Your task to perform on an android device: Go to wifi settings Image 0: 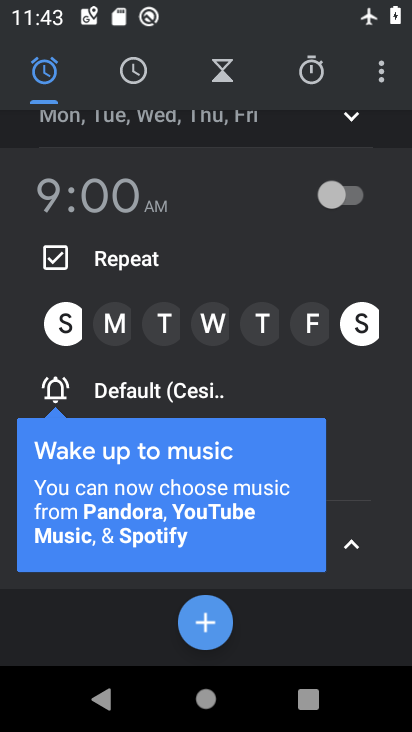
Step 0: press back button
Your task to perform on an android device: Go to wifi settings Image 1: 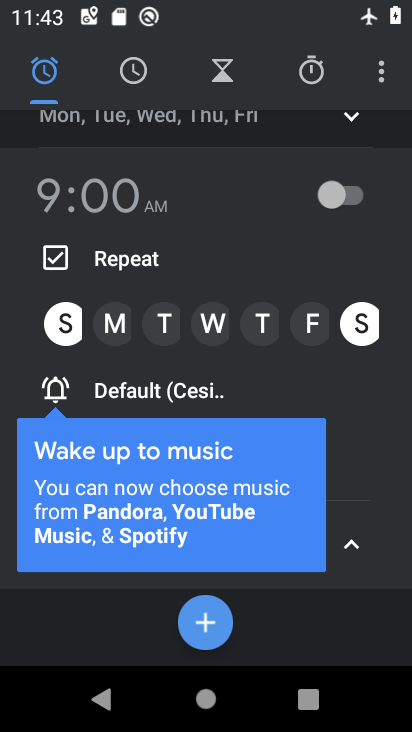
Step 1: press back button
Your task to perform on an android device: Go to wifi settings Image 2: 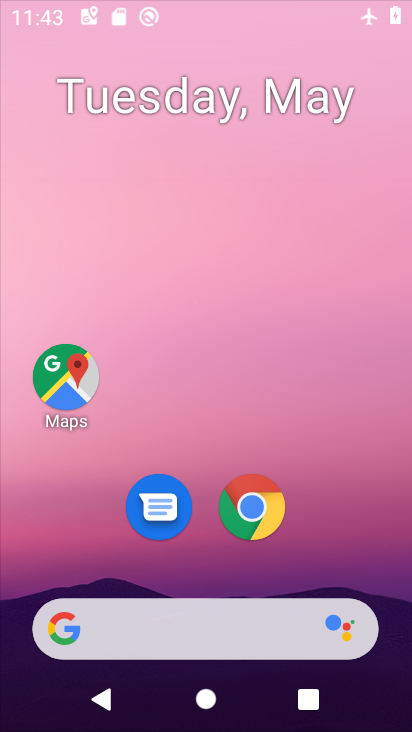
Step 2: press back button
Your task to perform on an android device: Go to wifi settings Image 3: 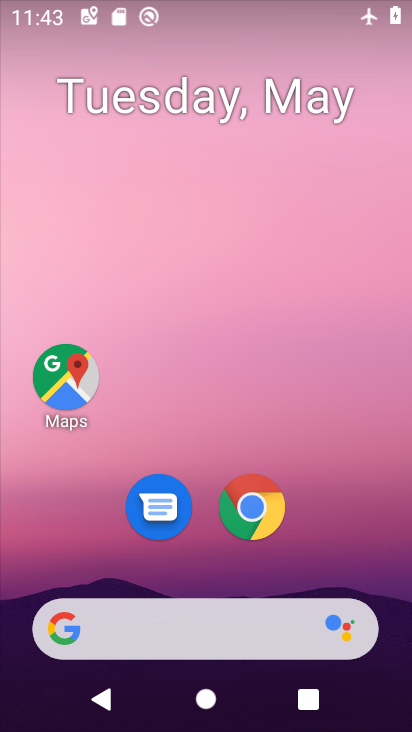
Step 3: drag from (260, 708) to (224, 104)
Your task to perform on an android device: Go to wifi settings Image 4: 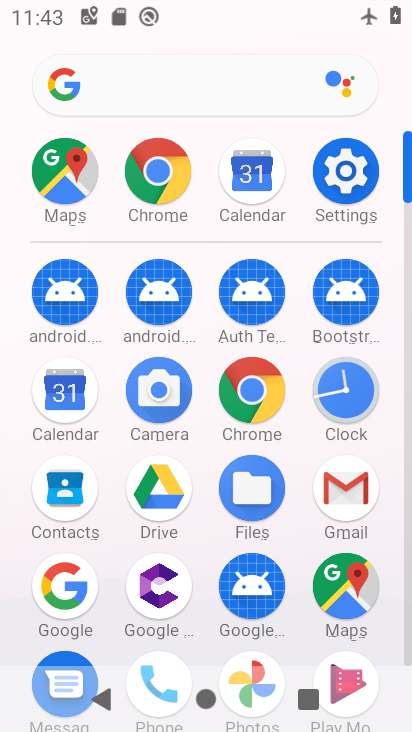
Step 4: click (323, 193)
Your task to perform on an android device: Go to wifi settings Image 5: 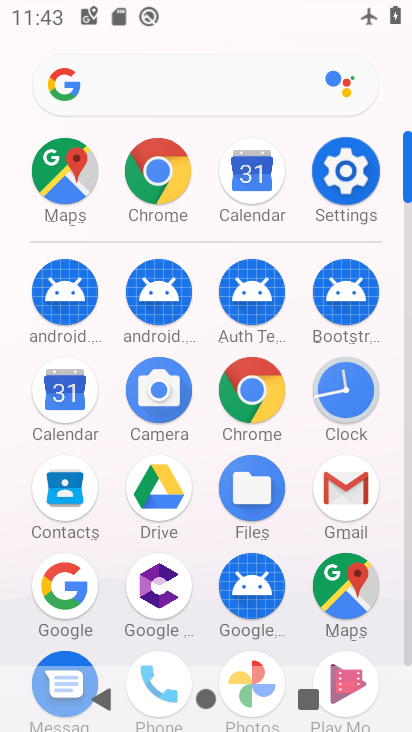
Step 5: click (323, 193)
Your task to perform on an android device: Go to wifi settings Image 6: 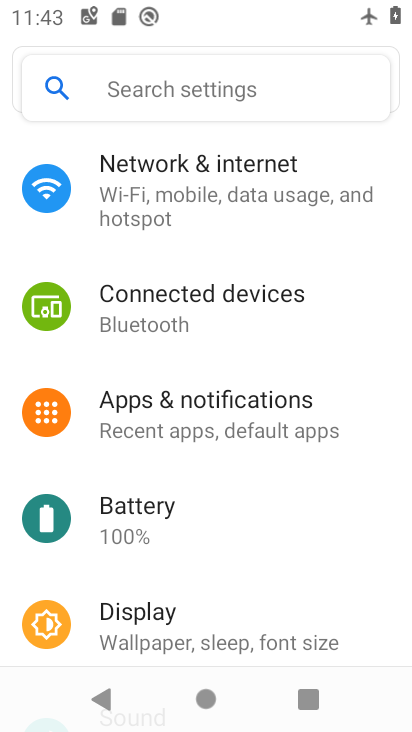
Step 6: drag from (182, 297) to (183, 192)
Your task to perform on an android device: Go to wifi settings Image 7: 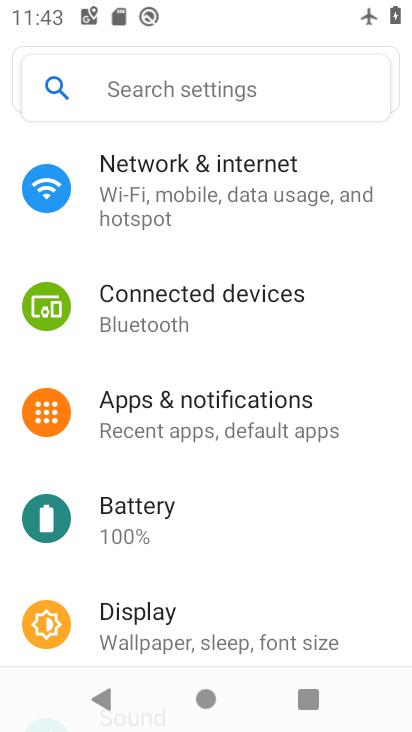
Step 7: click (224, 277)
Your task to perform on an android device: Go to wifi settings Image 8: 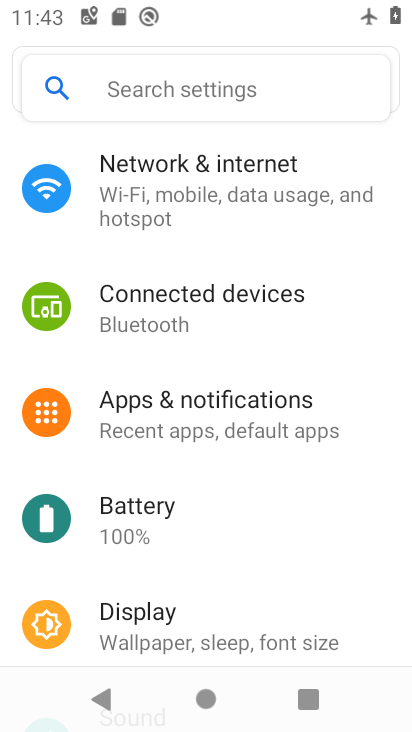
Step 8: click (190, 264)
Your task to perform on an android device: Go to wifi settings Image 9: 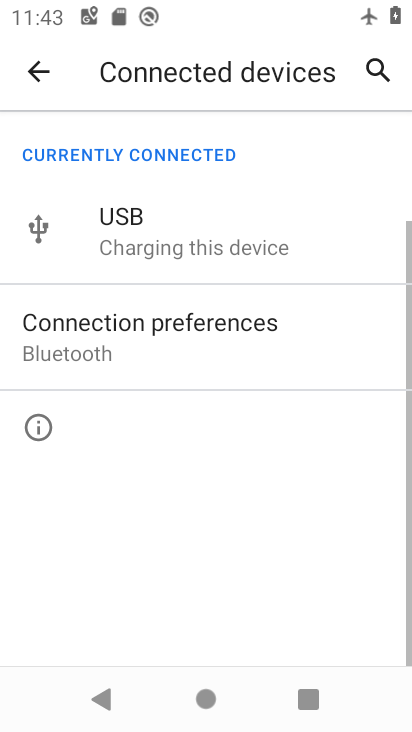
Step 9: drag from (222, 381) to (190, 243)
Your task to perform on an android device: Go to wifi settings Image 10: 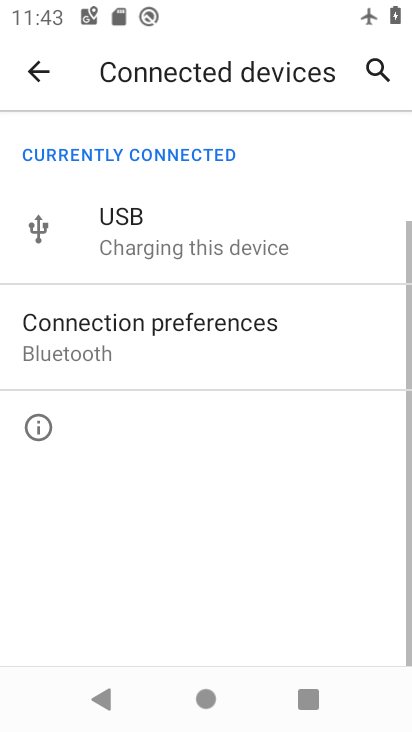
Step 10: click (167, 381)
Your task to perform on an android device: Go to wifi settings Image 11: 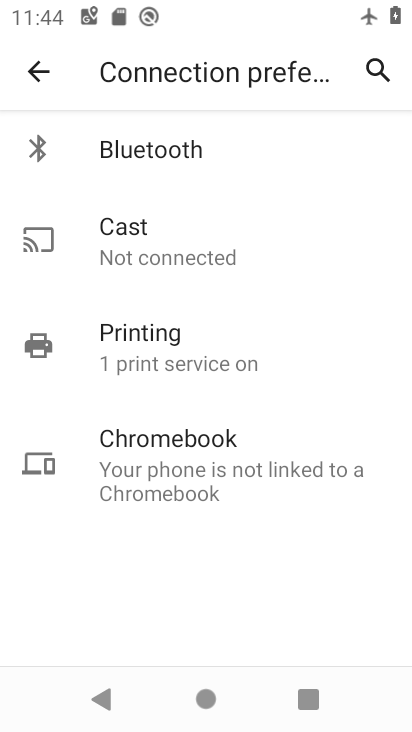
Step 11: click (40, 67)
Your task to perform on an android device: Go to wifi settings Image 12: 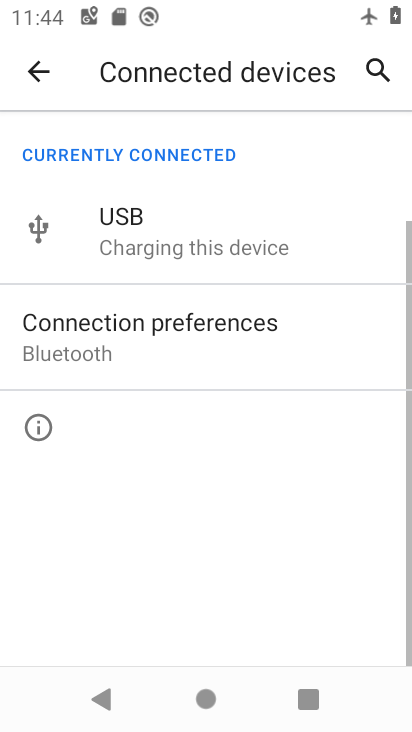
Step 12: click (33, 69)
Your task to perform on an android device: Go to wifi settings Image 13: 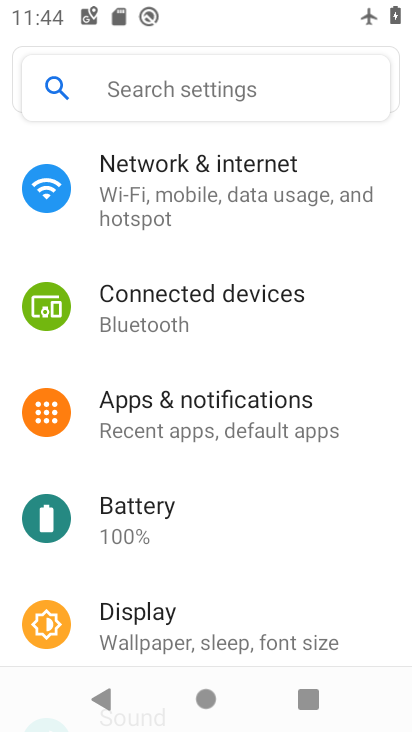
Step 13: click (36, 70)
Your task to perform on an android device: Go to wifi settings Image 14: 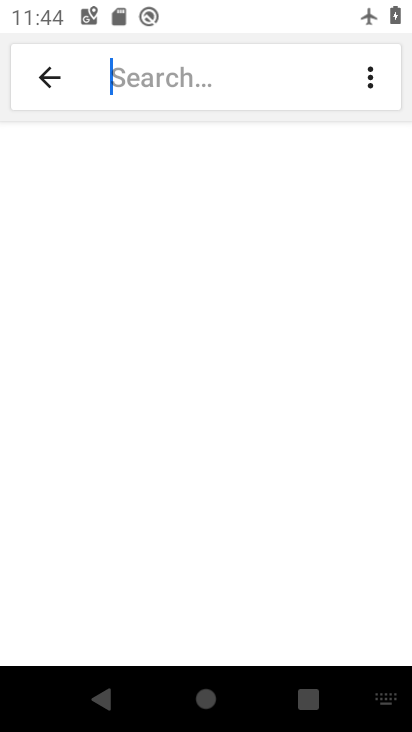
Step 14: click (46, 67)
Your task to perform on an android device: Go to wifi settings Image 15: 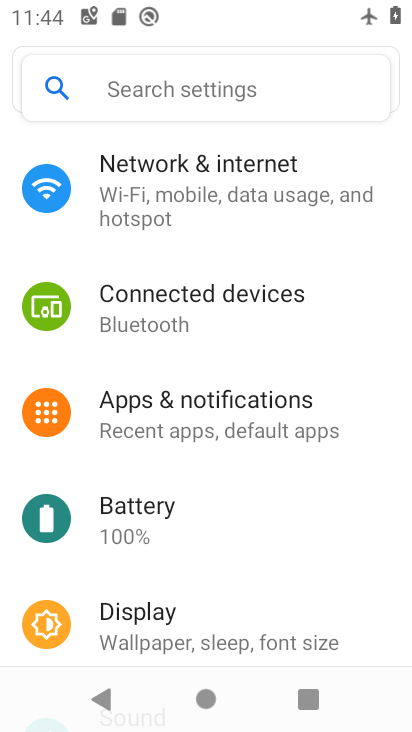
Step 15: drag from (184, 438) to (177, 395)
Your task to perform on an android device: Go to wifi settings Image 16: 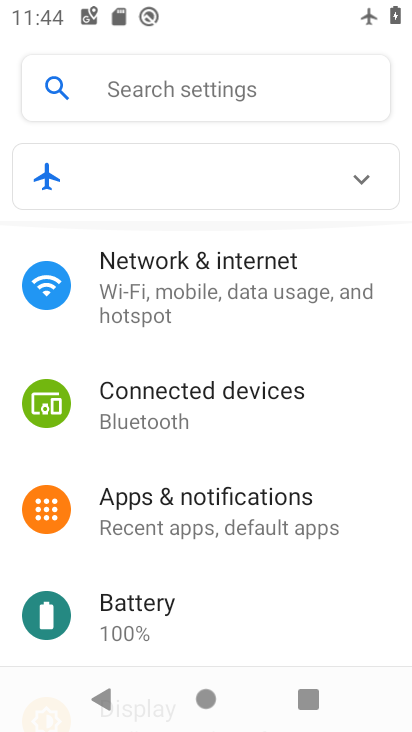
Step 16: drag from (166, 305) to (186, 448)
Your task to perform on an android device: Go to wifi settings Image 17: 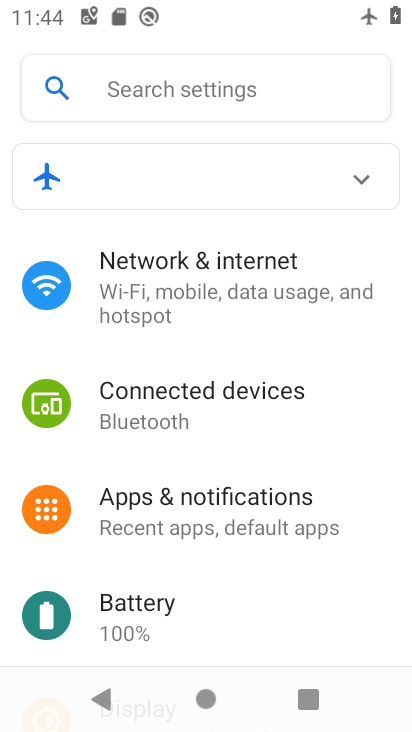
Step 17: click (189, 275)
Your task to perform on an android device: Go to wifi settings Image 18: 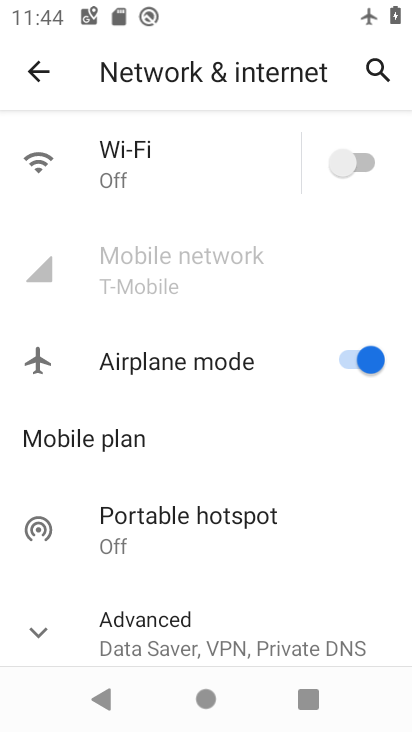
Step 18: click (168, 285)
Your task to perform on an android device: Go to wifi settings Image 19: 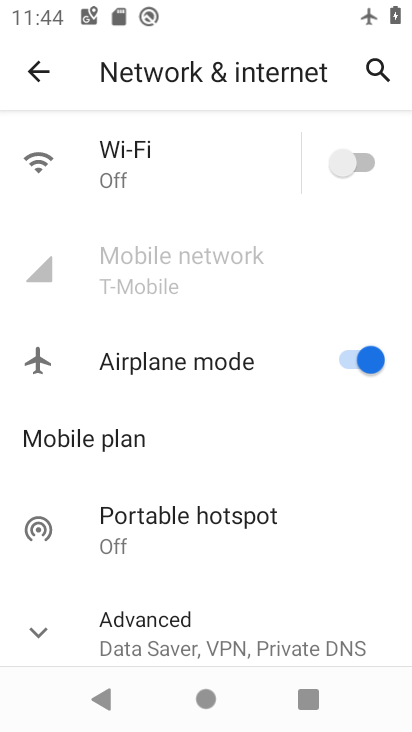
Step 19: click (347, 155)
Your task to perform on an android device: Go to wifi settings Image 20: 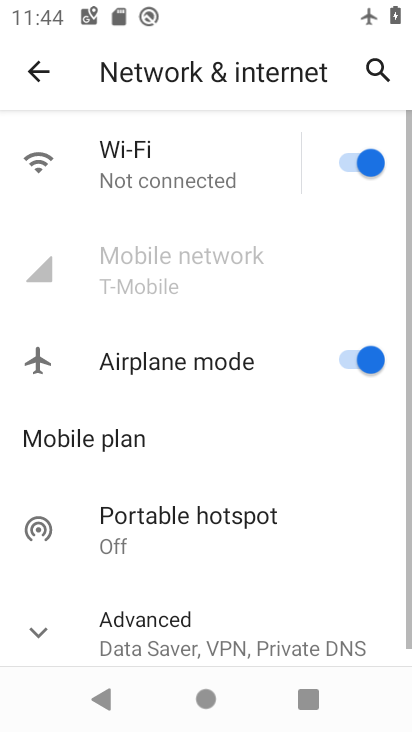
Step 20: click (350, 171)
Your task to perform on an android device: Go to wifi settings Image 21: 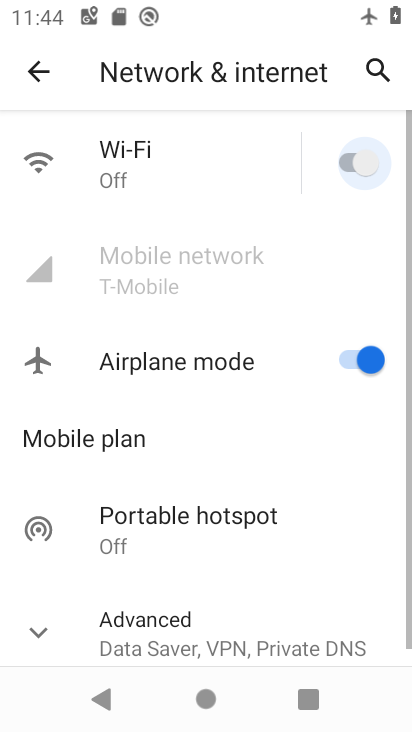
Step 21: click (344, 165)
Your task to perform on an android device: Go to wifi settings Image 22: 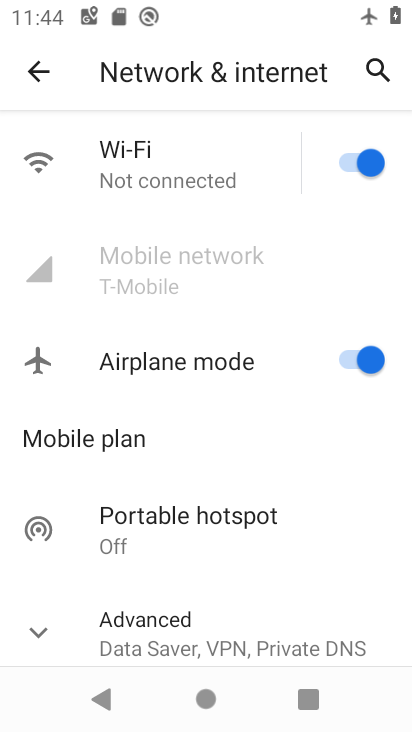
Step 22: task complete